Your task to perform on an android device: Open Reddit.com Image 0: 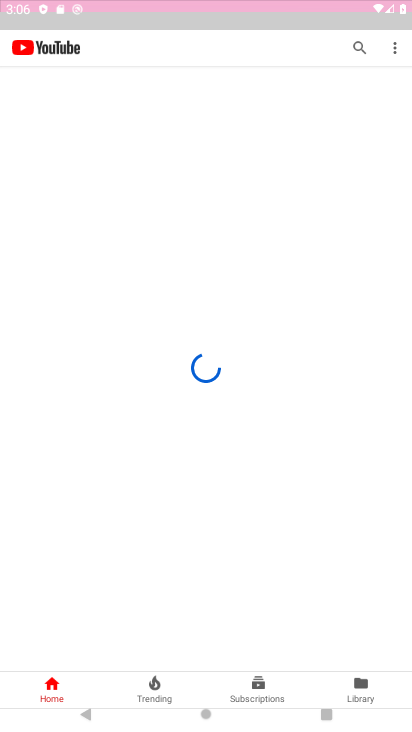
Step 0: click (133, 607)
Your task to perform on an android device: Open Reddit.com Image 1: 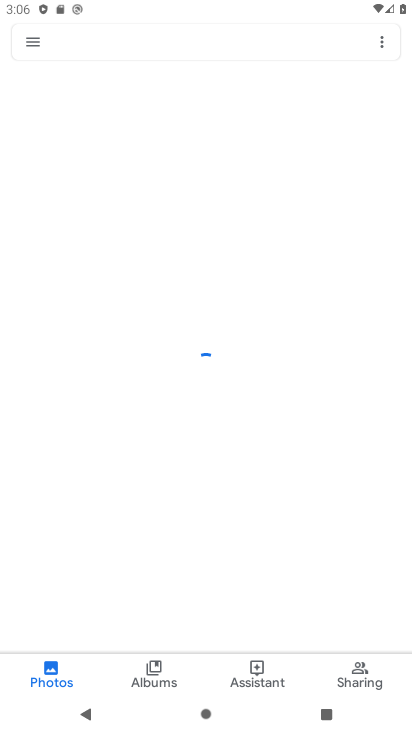
Step 1: press home button
Your task to perform on an android device: Open Reddit.com Image 2: 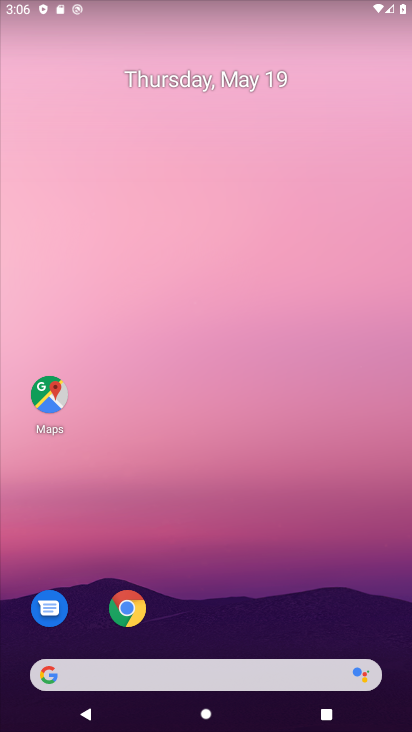
Step 2: click (127, 615)
Your task to perform on an android device: Open Reddit.com Image 3: 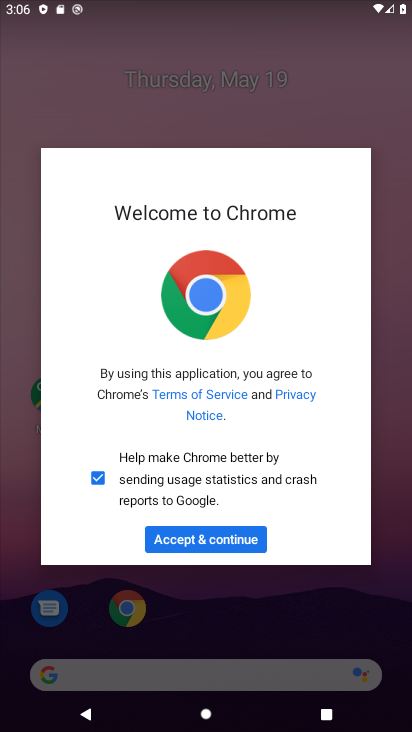
Step 3: click (242, 544)
Your task to perform on an android device: Open Reddit.com Image 4: 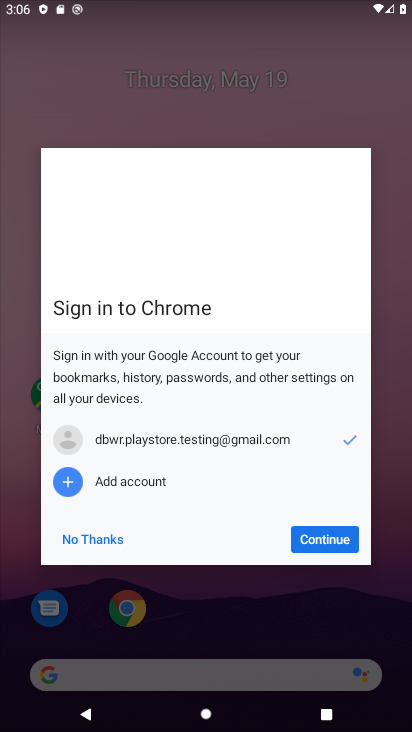
Step 4: click (345, 546)
Your task to perform on an android device: Open Reddit.com Image 5: 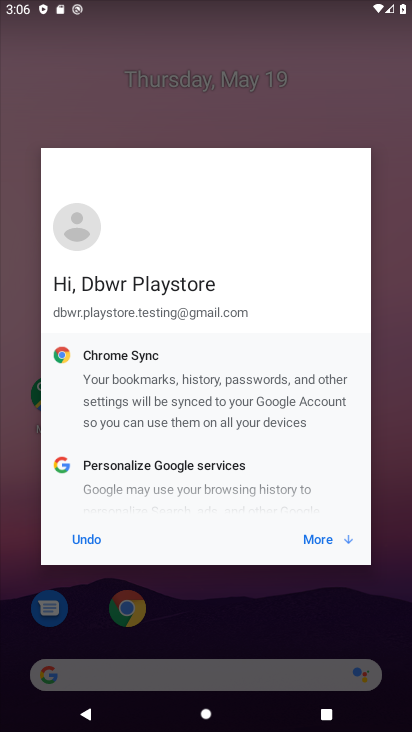
Step 5: click (308, 537)
Your task to perform on an android device: Open Reddit.com Image 6: 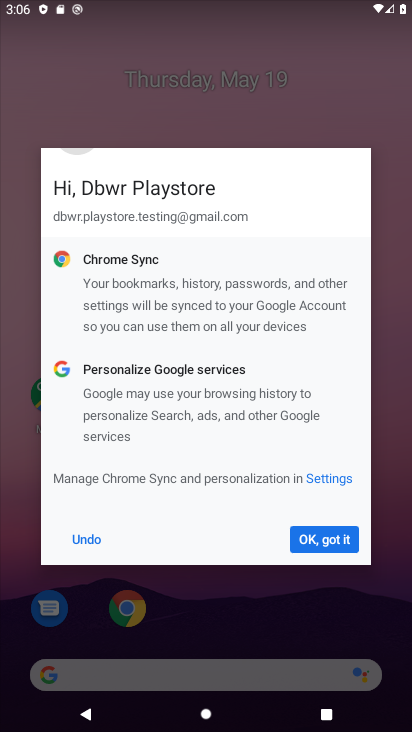
Step 6: click (308, 537)
Your task to perform on an android device: Open Reddit.com Image 7: 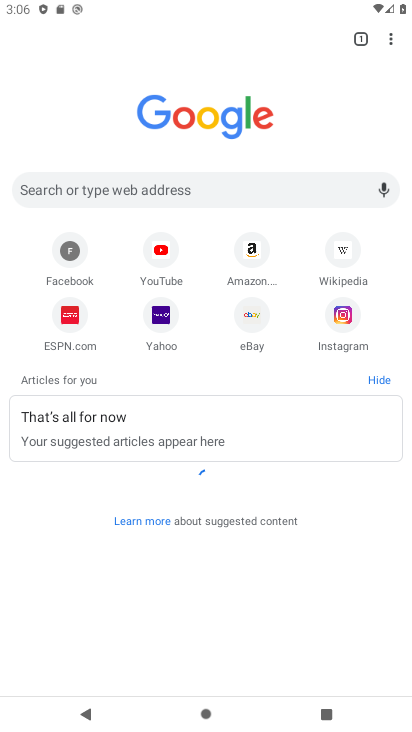
Step 7: click (109, 193)
Your task to perform on an android device: Open Reddit.com Image 8: 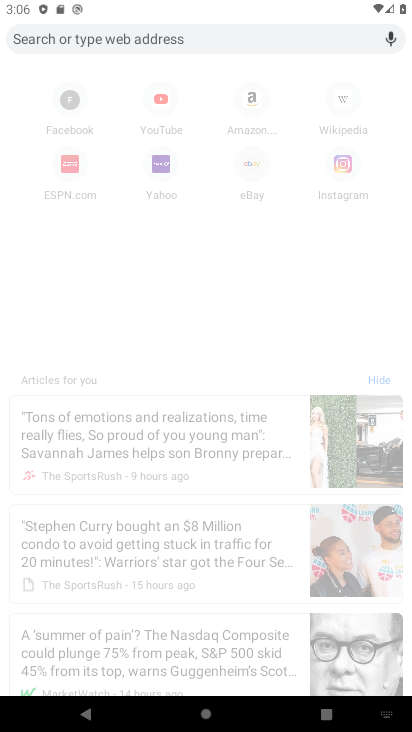
Step 8: type "reddit.com"
Your task to perform on an android device: Open Reddit.com Image 9: 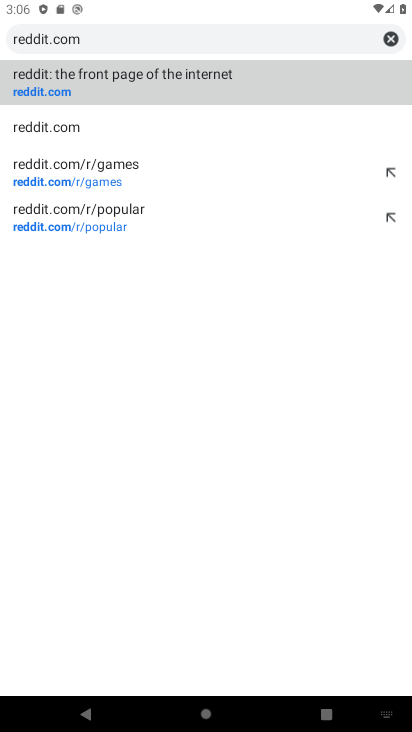
Step 9: click (37, 71)
Your task to perform on an android device: Open Reddit.com Image 10: 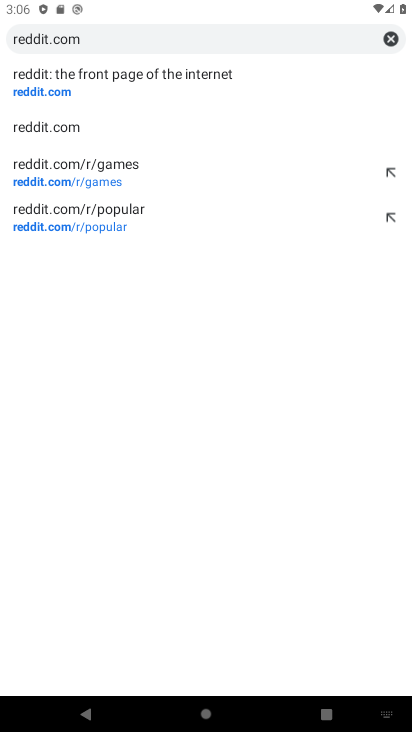
Step 10: click (50, 81)
Your task to perform on an android device: Open Reddit.com Image 11: 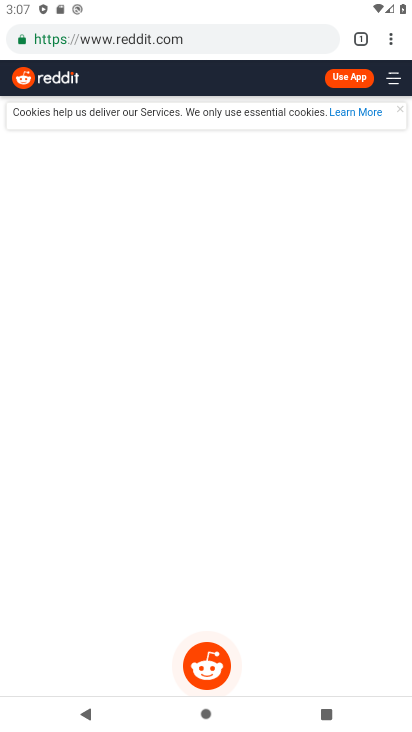
Step 11: task complete